Your task to perform on an android device: What is the speed of light? Image 0: 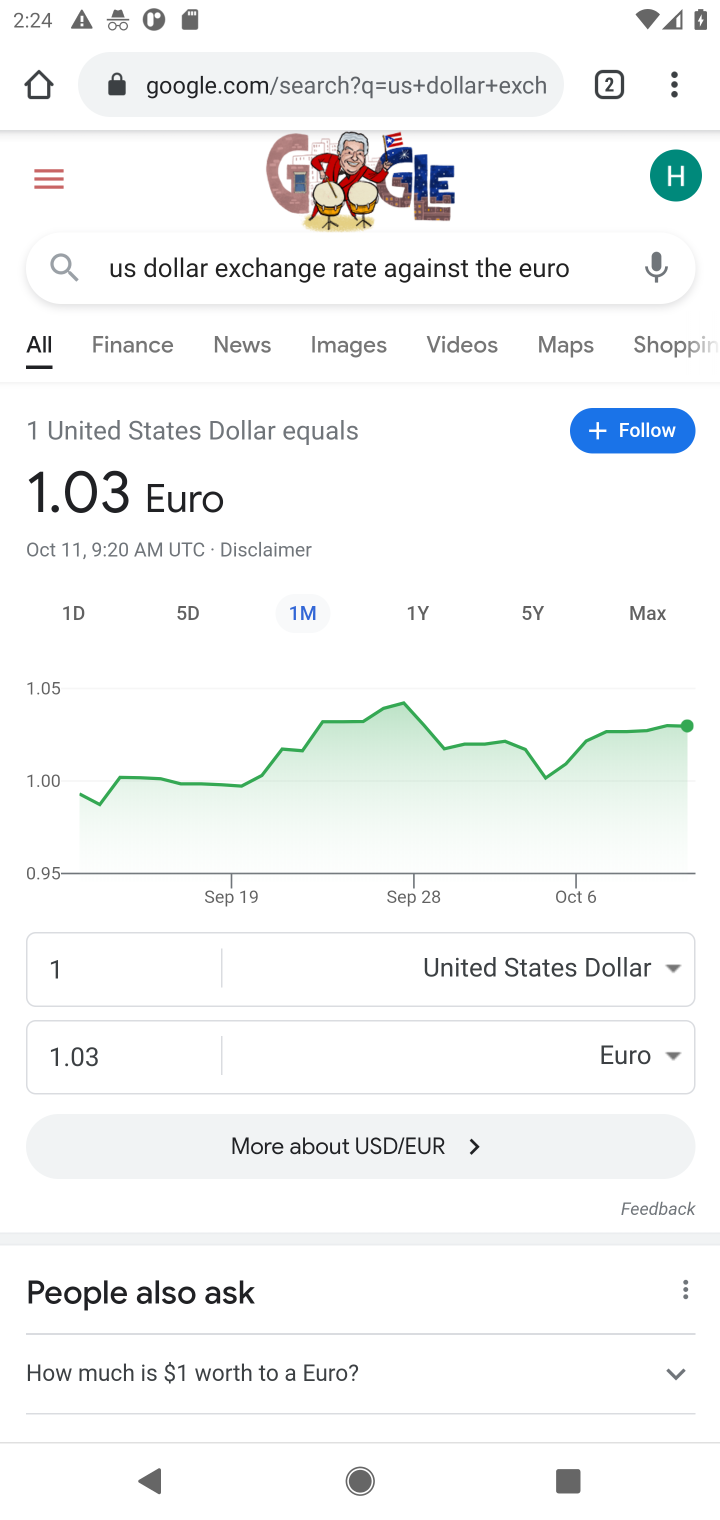
Step 0: press home button
Your task to perform on an android device: What is the speed of light? Image 1: 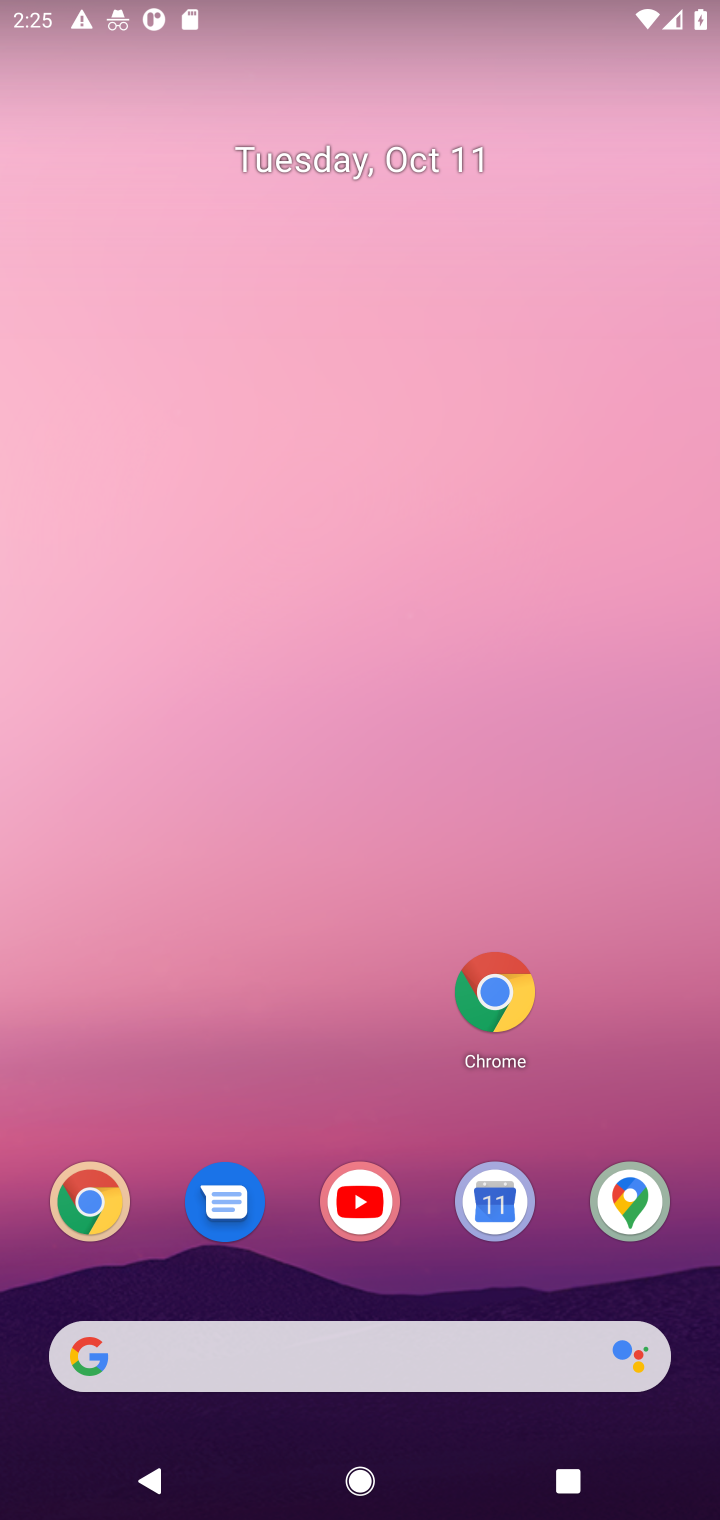
Step 1: click (492, 988)
Your task to perform on an android device: What is the speed of light? Image 2: 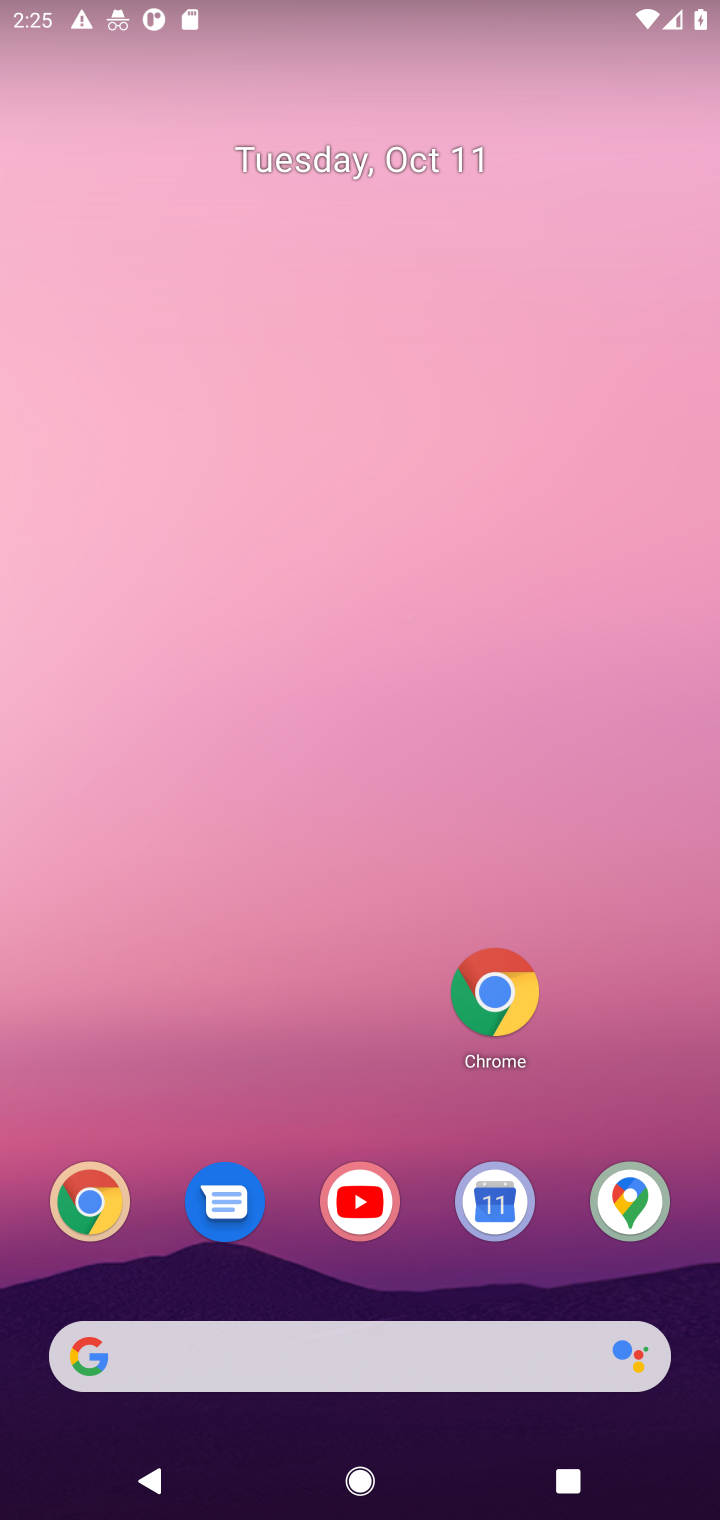
Step 2: click (492, 992)
Your task to perform on an android device: What is the speed of light? Image 3: 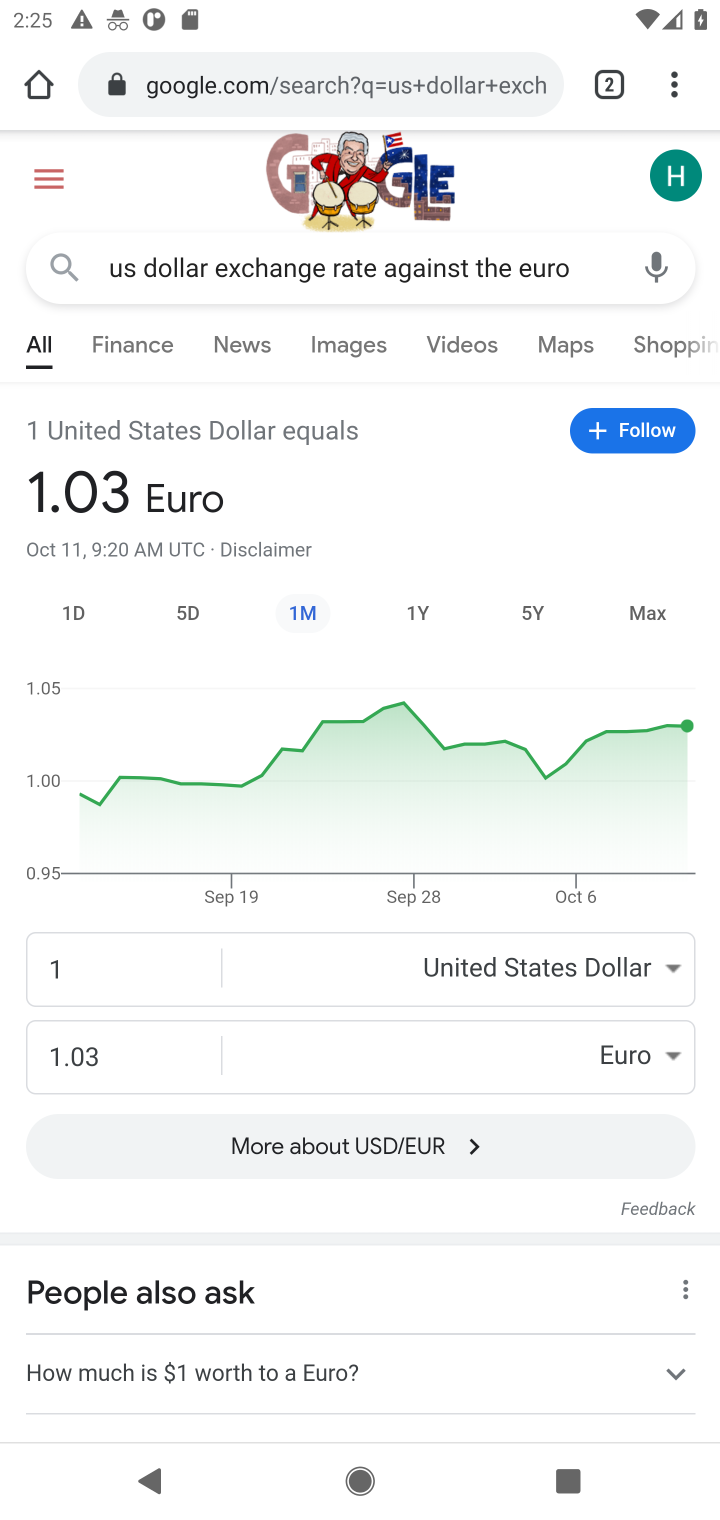
Step 3: click (430, 86)
Your task to perform on an android device: What is the speed of light? Image 4: 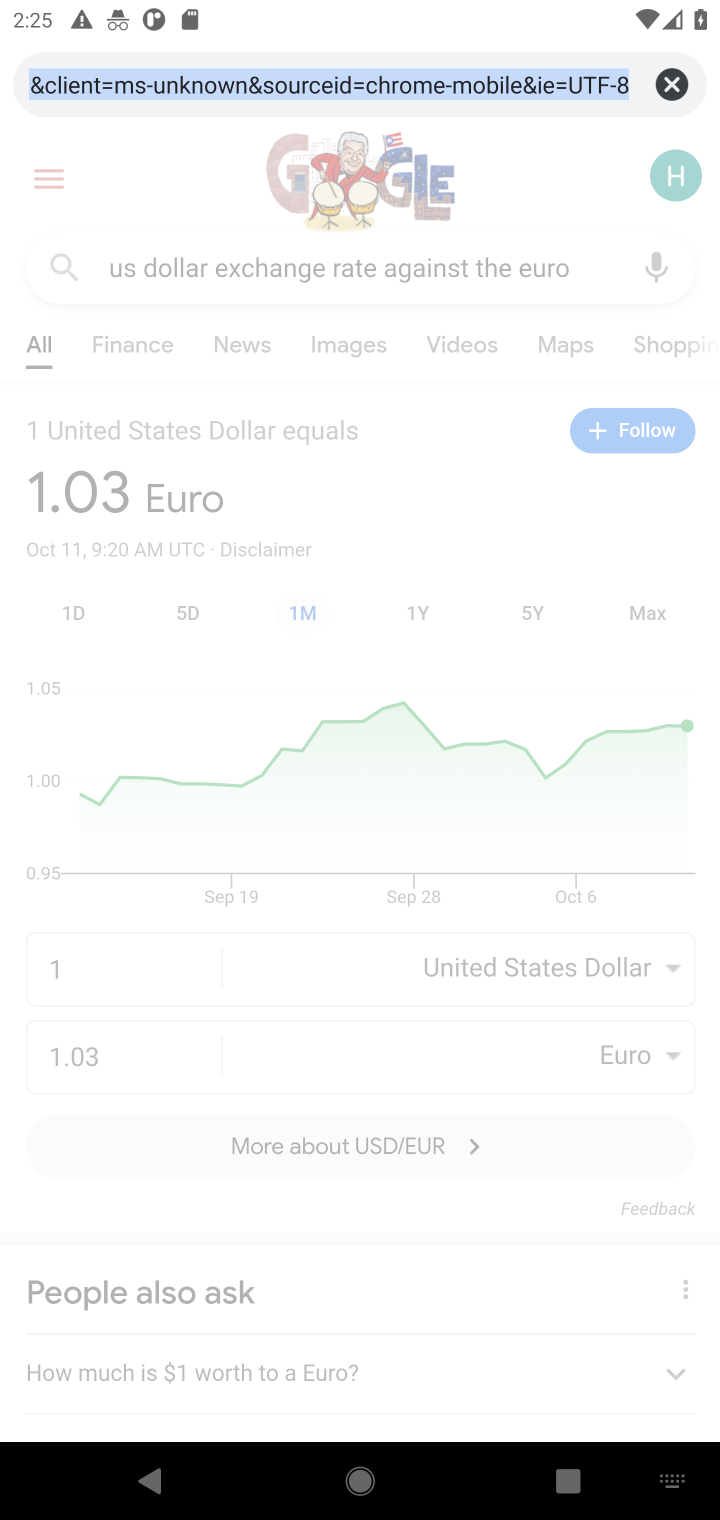
Step 4: click (678, 83)
Your task to perform on an android device: What is the speed of light? Image 5: 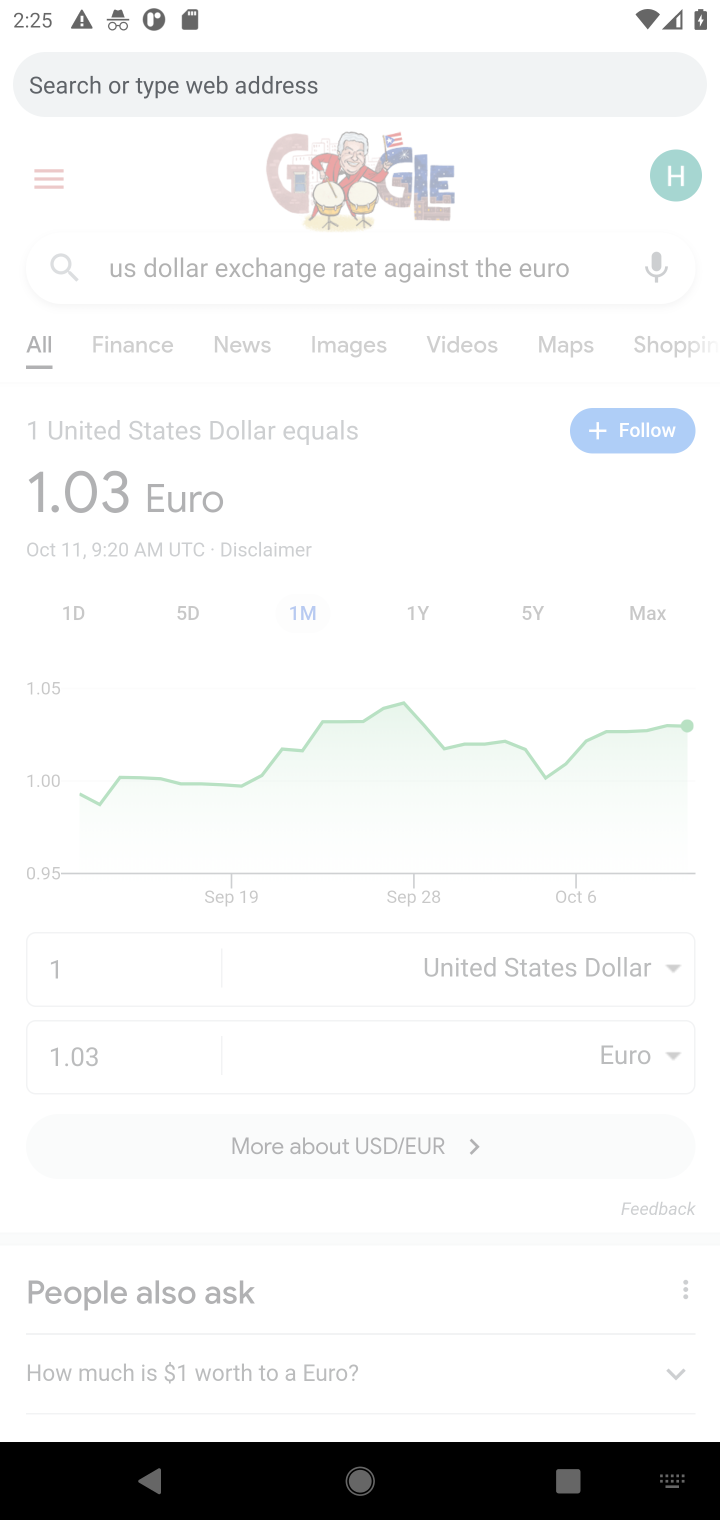
Step 5: type "What is the speed of light"
Your task to perform on an android device: What is the speed of light? Image 6: 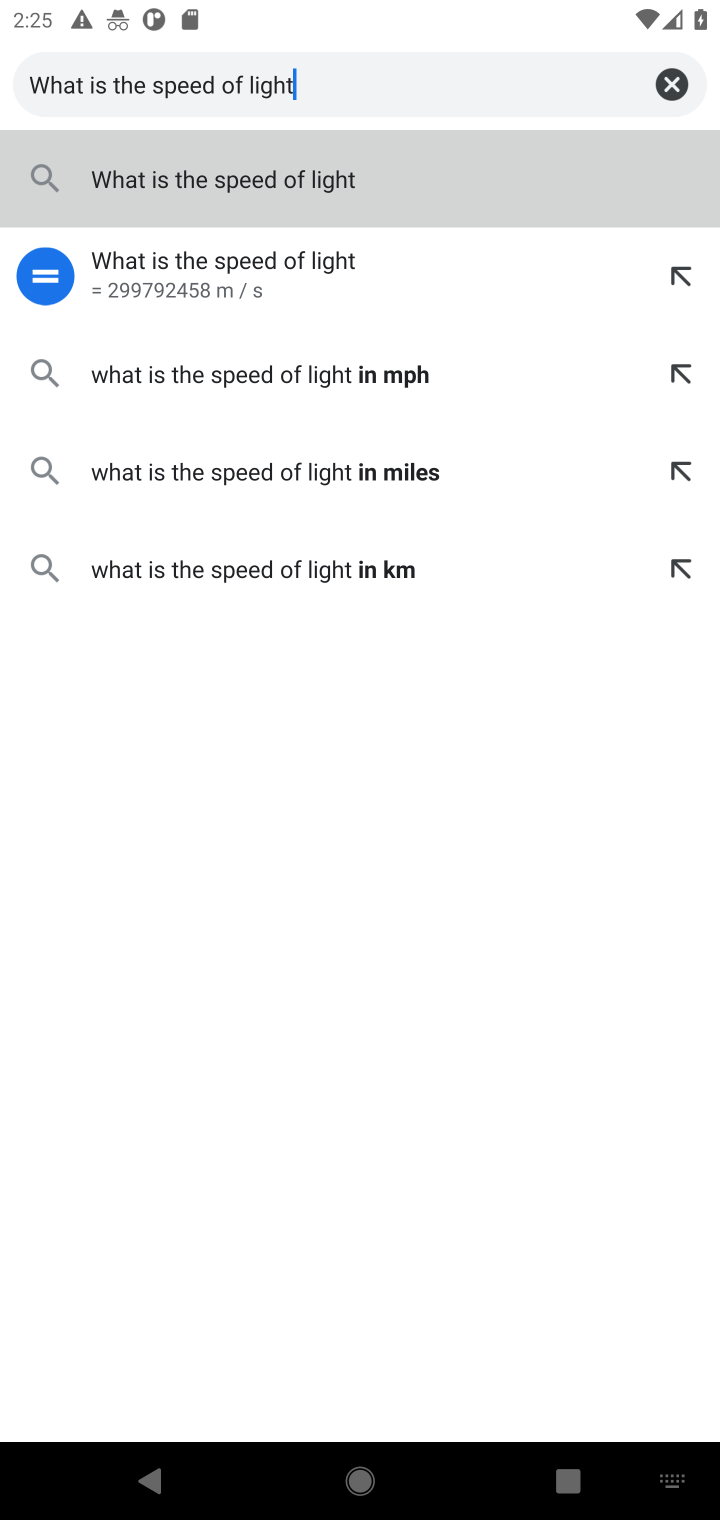
Step 6: click (290, 177)
Your task to perform on an android device: What is the speed of light? Image 7: 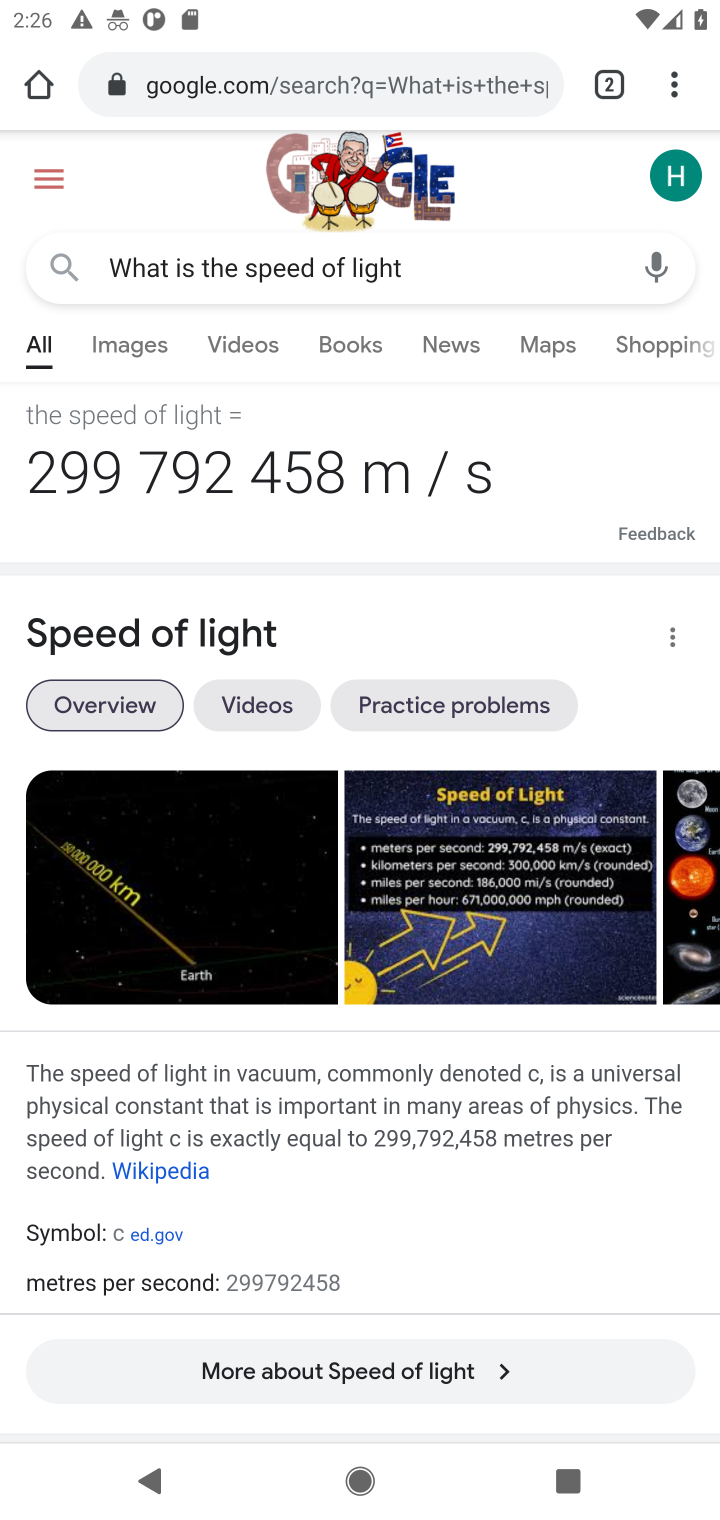
Step 7: task complete